Your task to perform on an android device: Go to Google maps Image 0: 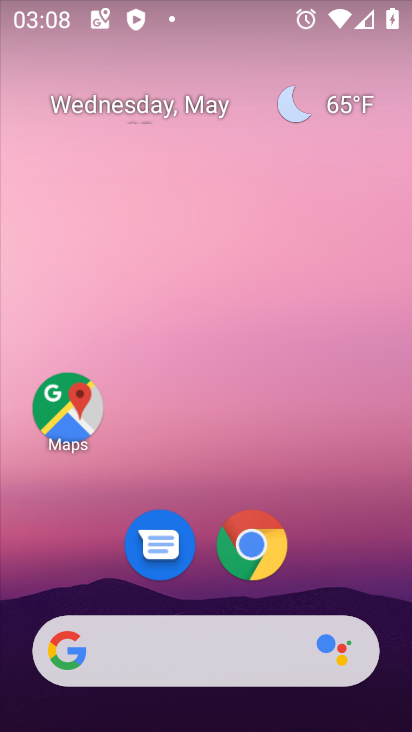
Step 0: drag from (342, 546) to (241, 712)
Your task to perform on an android device: Go to Google maps Image 1: 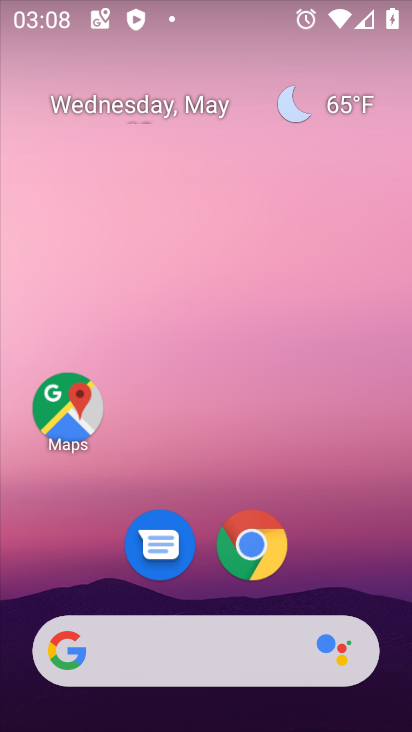
Step 1: click (62, 411)
Your task to perform on an android device: Go to Google maps Image 2: 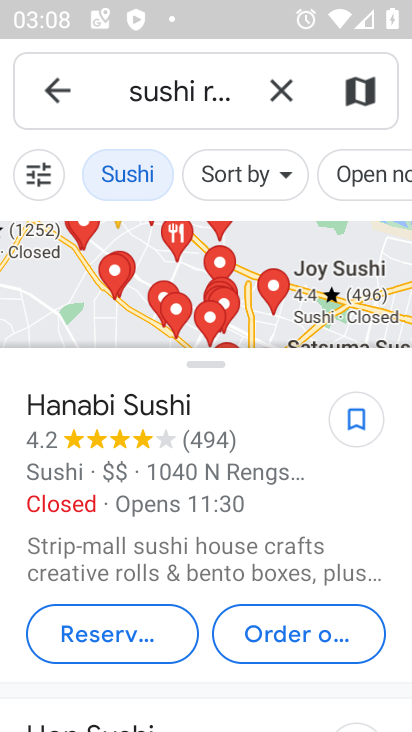
Step 2: task complete